Your task to perform on an android device: Open the calendar and show me this week's events? Image 0: 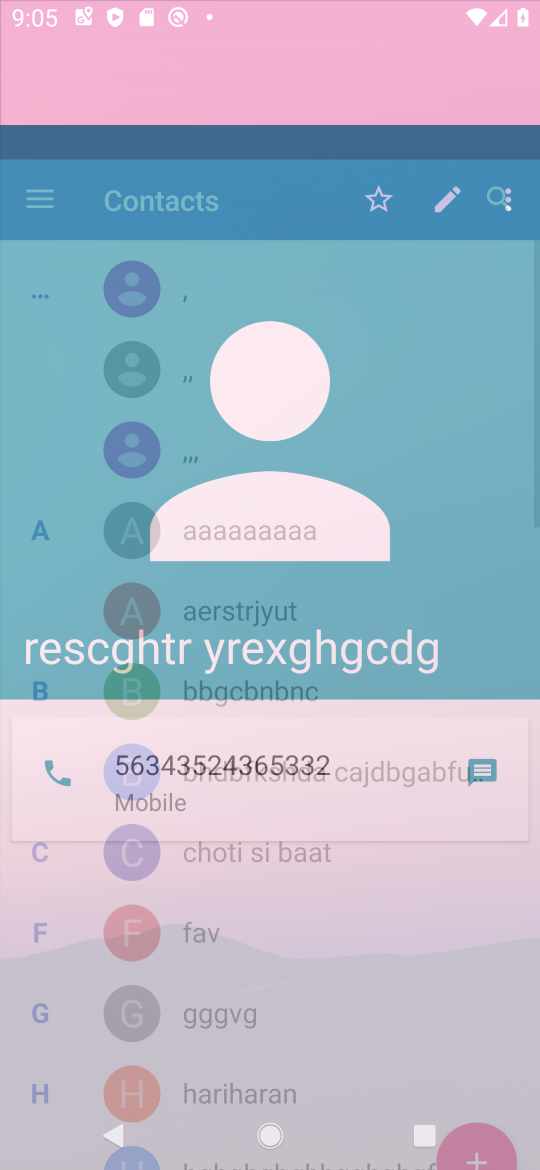
Step 0: click (446, 146)
Your task to perform on an android device: Open the calendar and show me this week's events? Image 1: 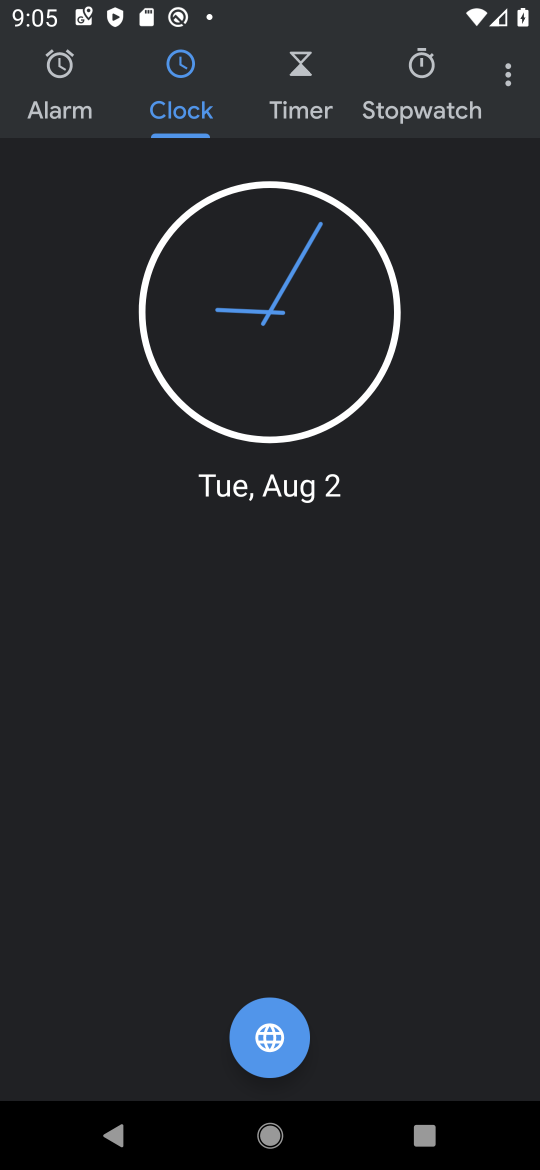
Step 1: press home button
Your task to perform on an android device: Open the calendar and show me this week's events? Image 2: 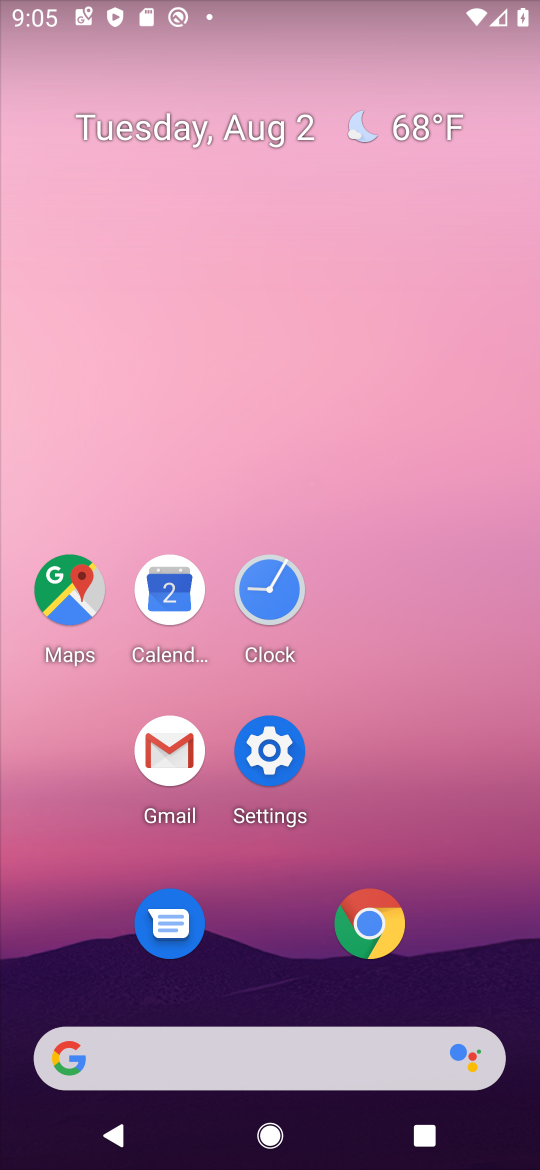
Step 2: click (143, 609)
Your task to perform on an android device: Open the calendar and show me this week's events? Image 3: 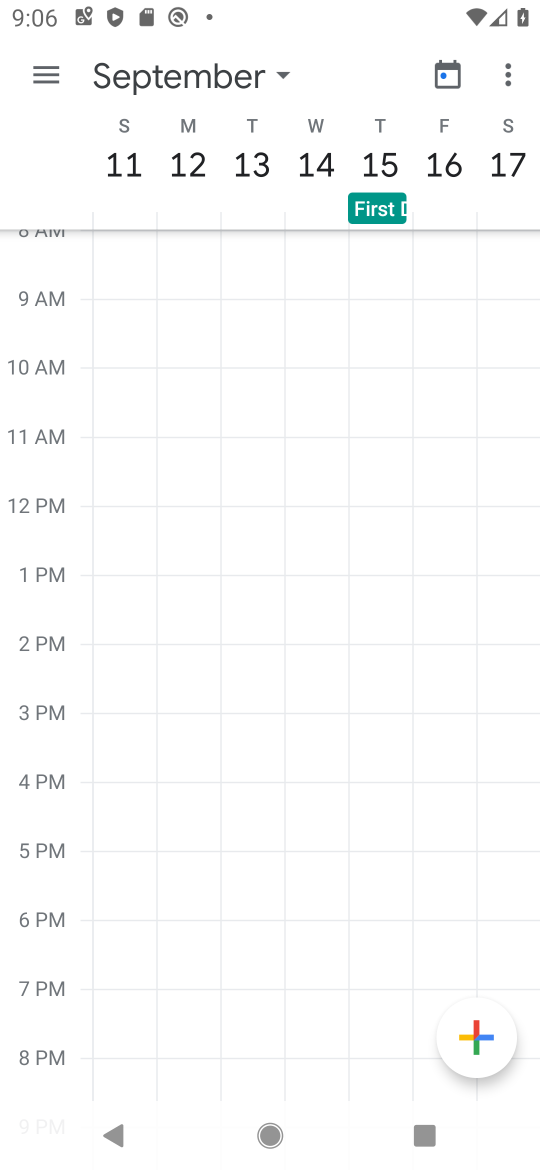
Step 3: click (287, 75)
Your task to perform on an android device: Open the calendar and show me this week's events? Image 4: 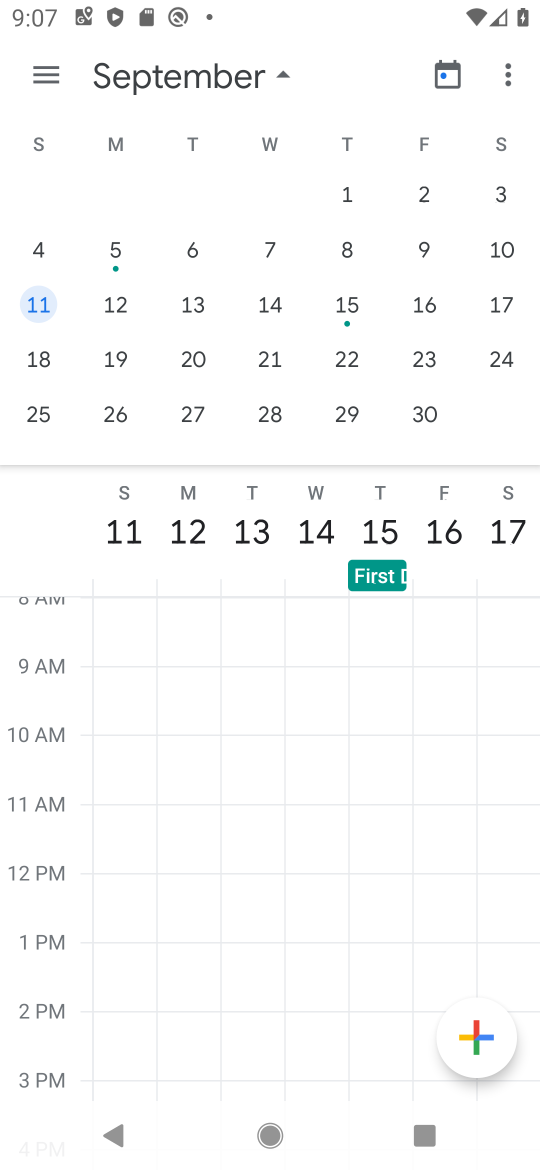
Step 4: drag from (29, 342) to (487, 313)
Your task to perform on an android device: Open the calendar and show me this week's events? Image 5: 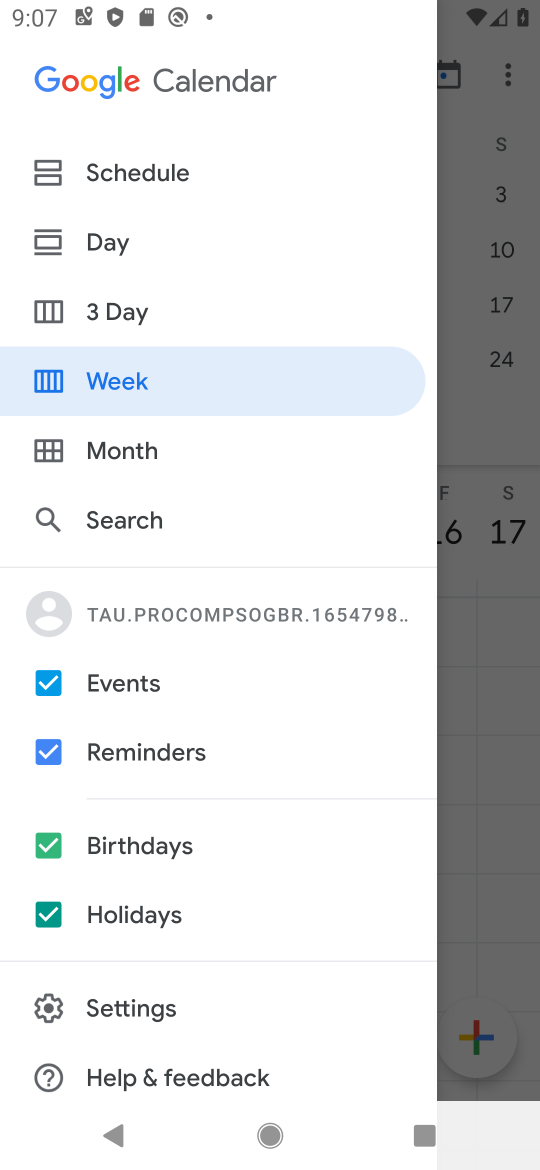
Step 5: press back button
Your task to perform on an android device: Open the calendar and show me this week's events? Image 6: 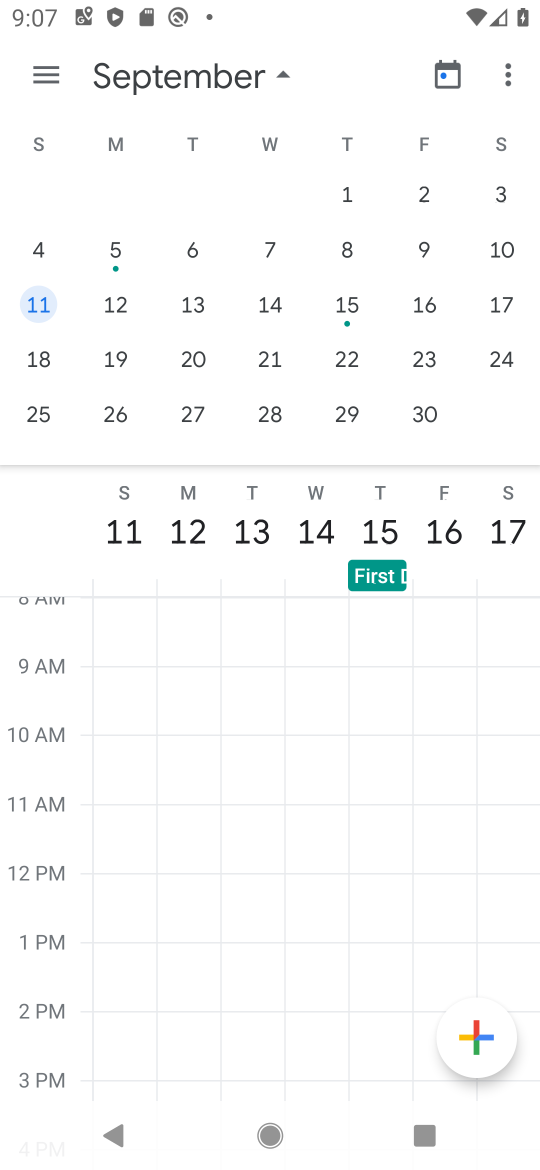
Step 6: drag from (56, 339) to (515, 304)
Your task to perform on an android device: Open the calendar and show me this week's events? Image 7: 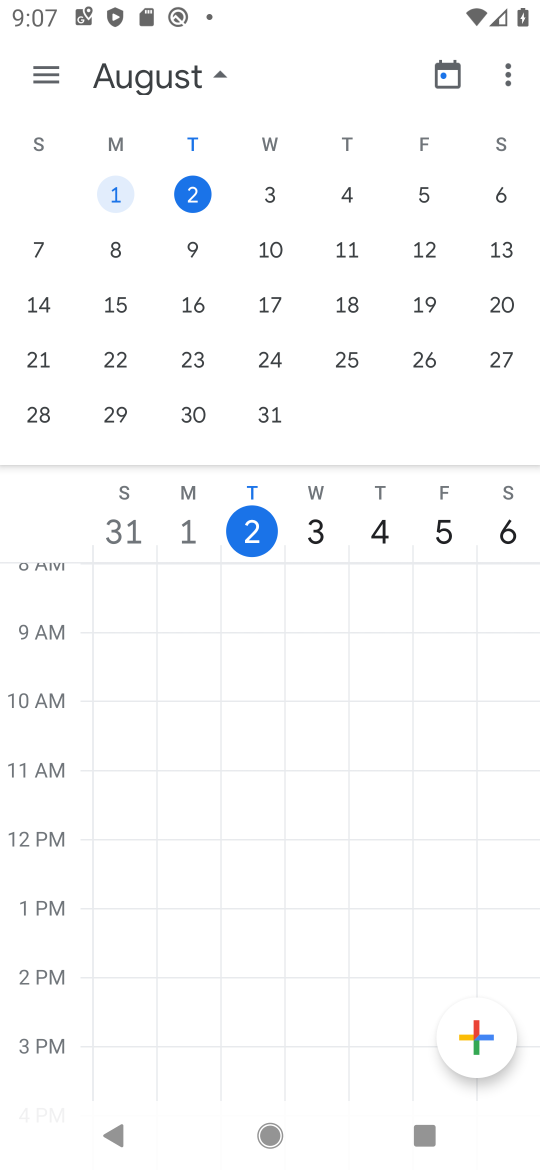
Step 7: click (37, 67)
Your task to perform on an android device: Open the calendar and show me this week's events? Image 8: 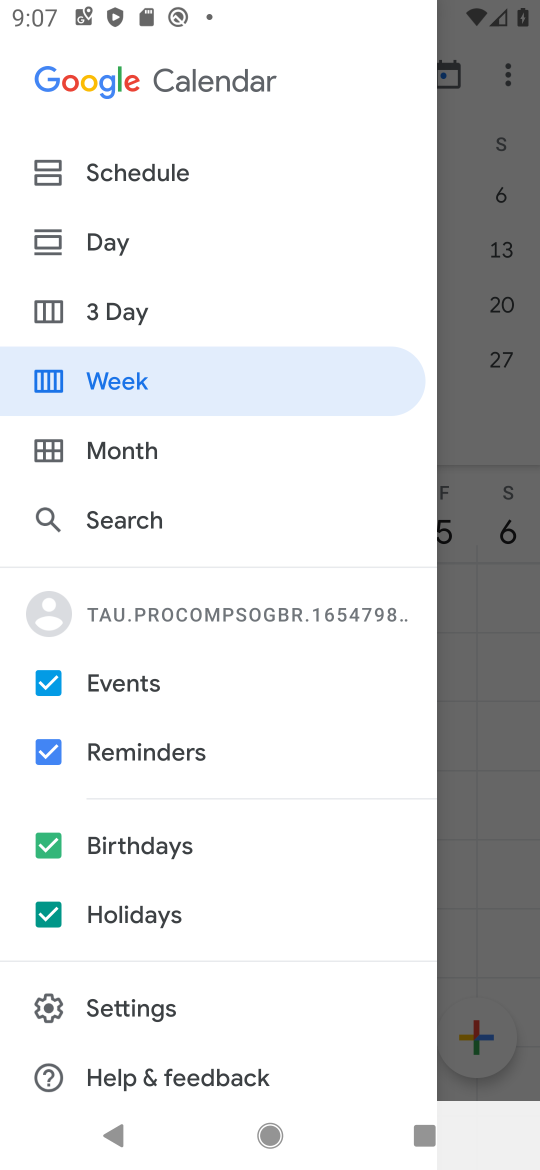
Step 8: click (129, 159)
Your task to perform on an android device: Open the calendar and show me this week's events? Image 9: 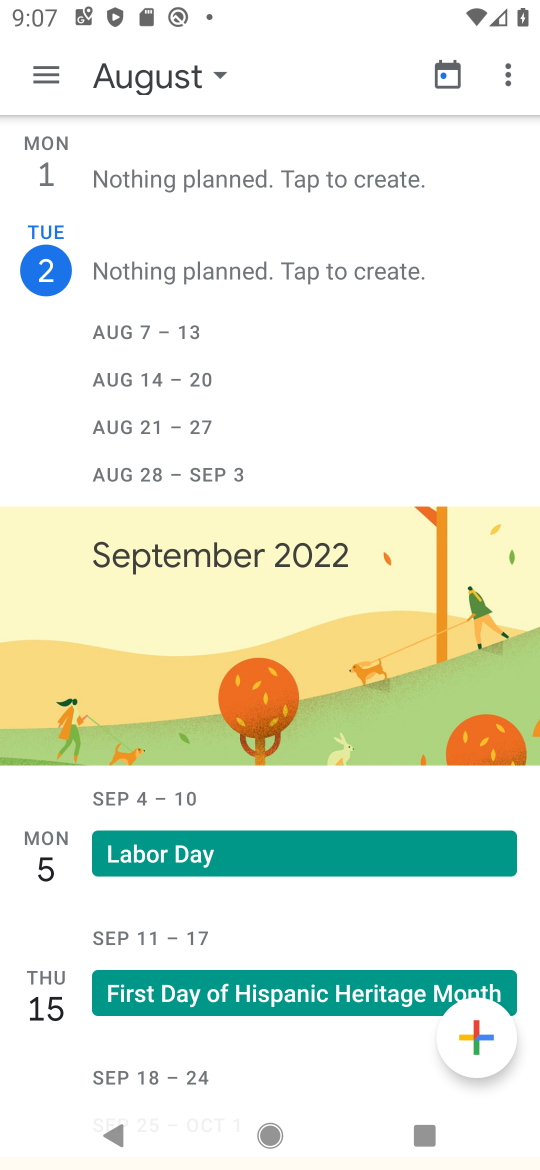
Step 9: click (39, 75)
Your task to perform on an android device: Open the calendar and show me this week's events? Image 10: 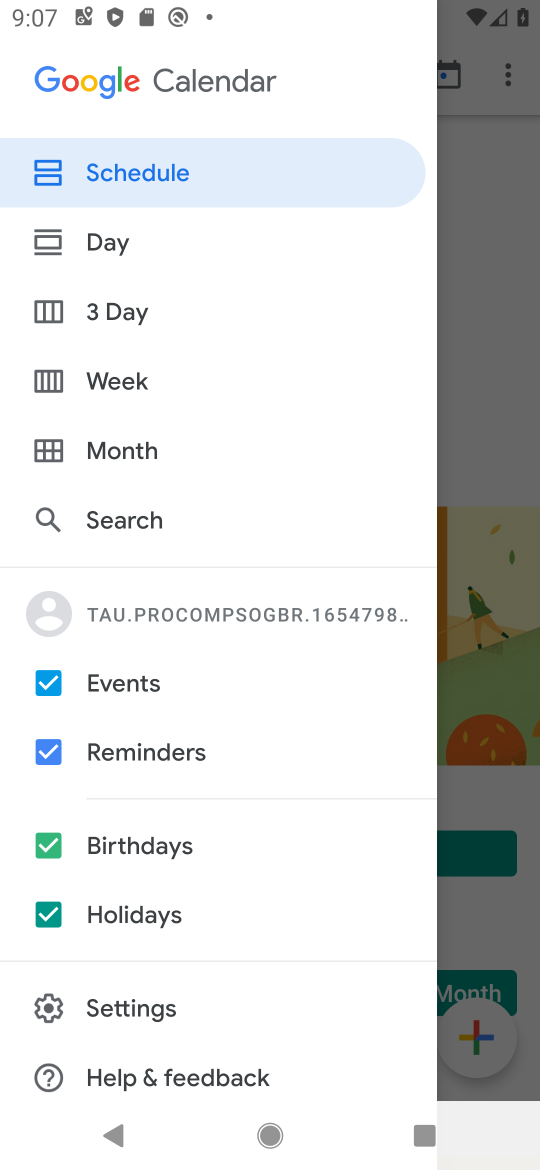
Step 10: click (126, 374)
Your task to perform on an android device: Open the calendar and show me this week's events? Image 11: 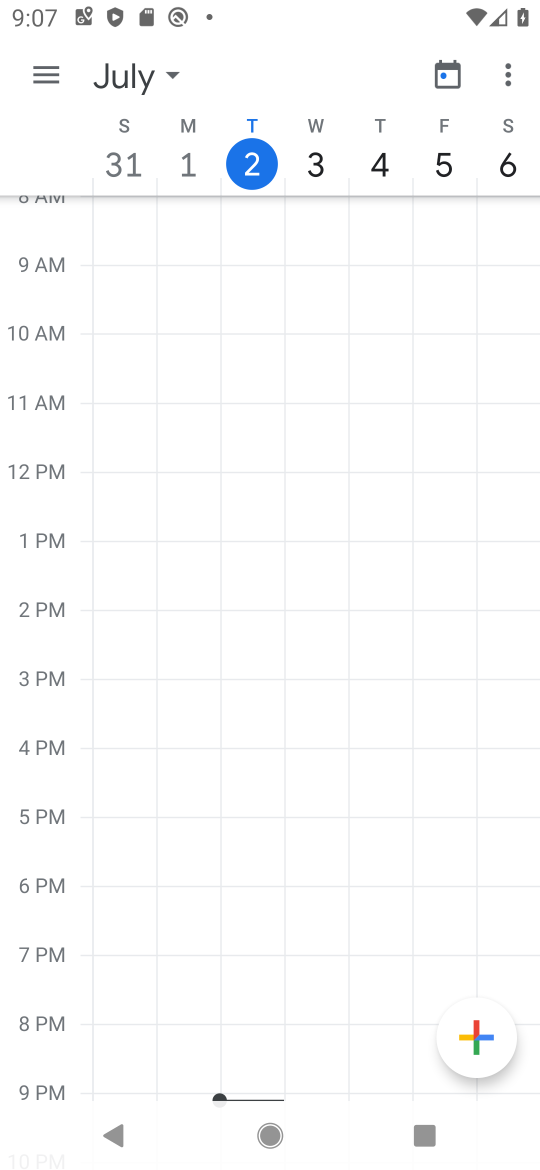
Step 11: click (54, 69)
Your task to perform on an android device: Open the calendar and show me this week's events? Image 12: 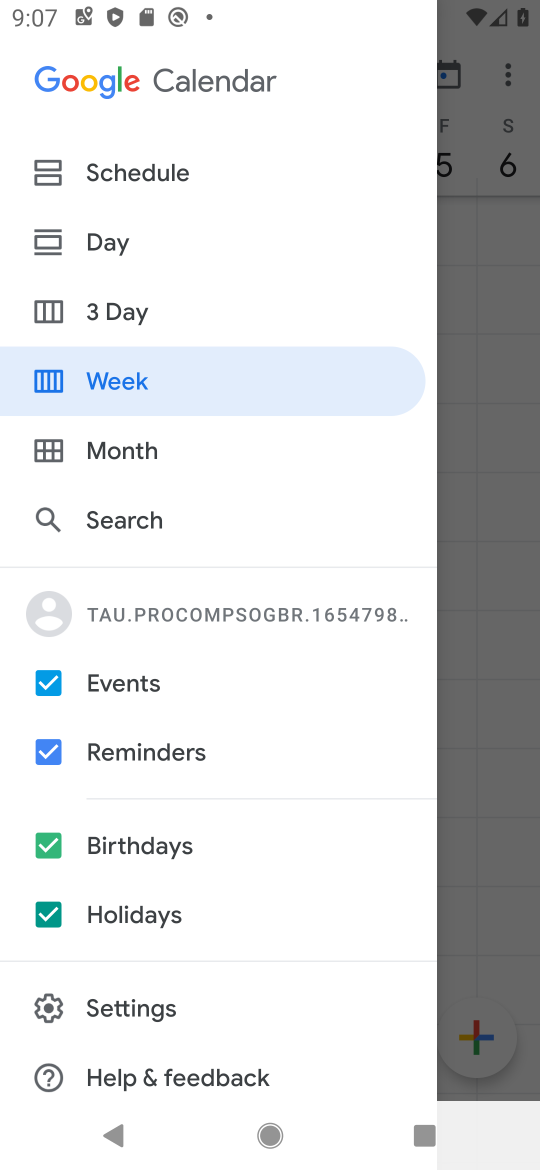
Step 12: click (122, 169)
Your task to perform on an android device: Open the calendar and show me this week's events? Image 13: 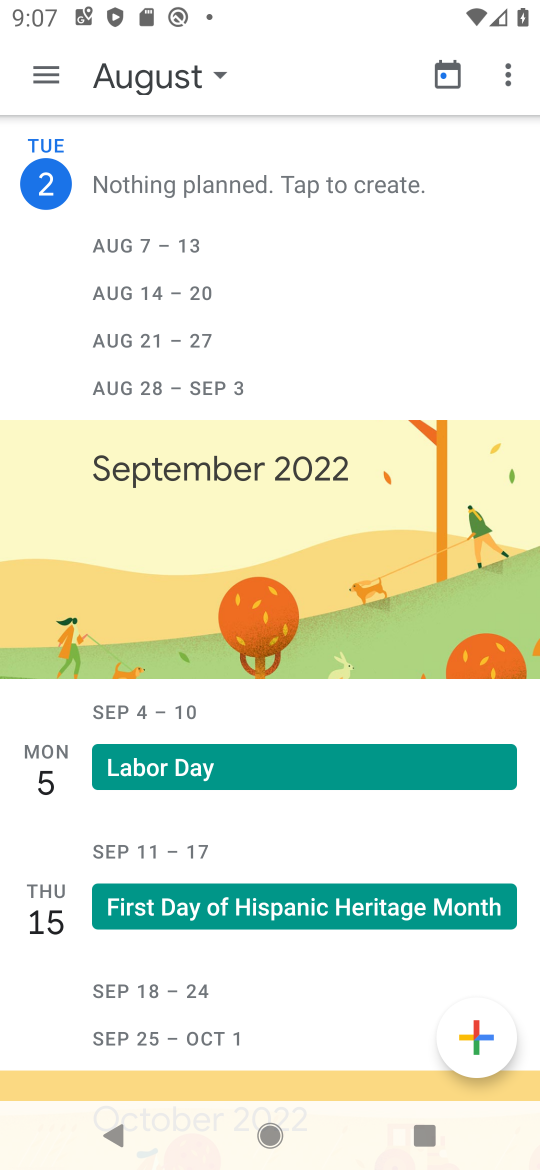
Step 13: task complete